Your task to perform on an android device: Open privacy settings Image 0: 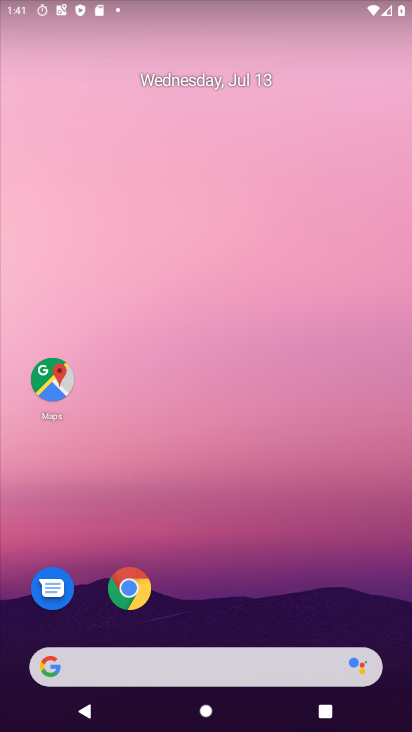
Step 0: drag from (251, 603) to (325, 341)
Your task to perform on an android device: Open privacy settings Image 1: 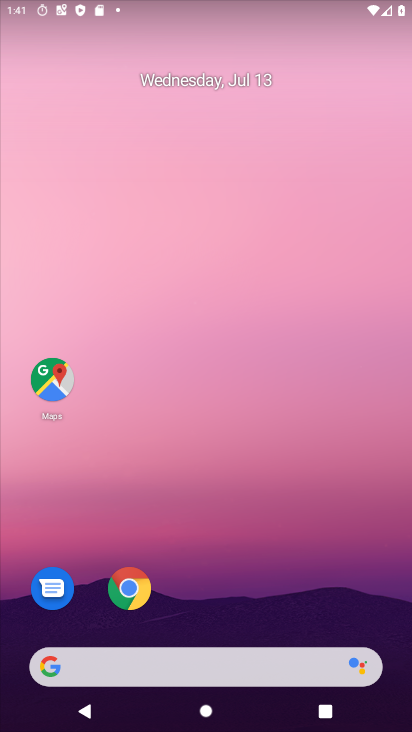
Step 1: drag from (170, 524) to (175, 261)
Your task to perform on an android device: Open privacy settings Image 2: 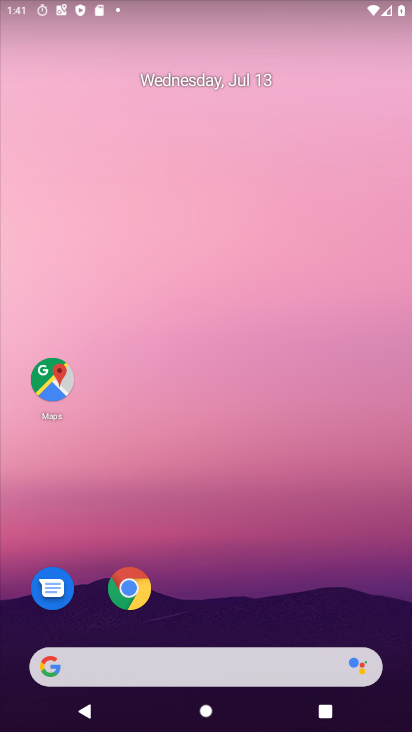
Step 2: drag from (241, 641) to (272, 284)
Your task to perform on an android device: Open privacy settings Image 3: 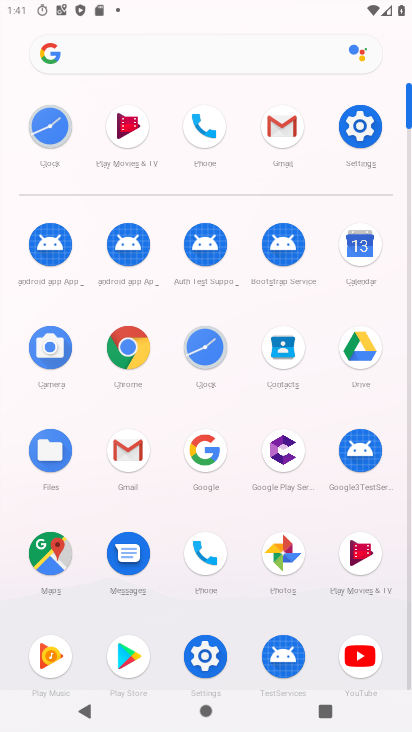
Step 3: click (370, 130)
Your task to perform on an android device: Open privacy settings Image 4: 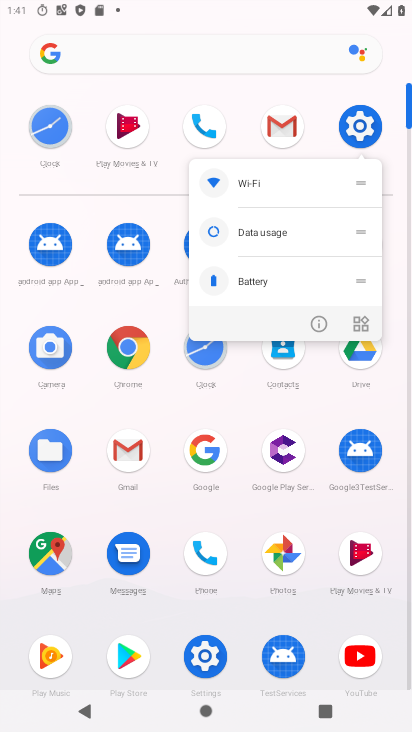
Step 4: click (370, 130)
Your task to perform on an android device: Open privacy settings Image 5: 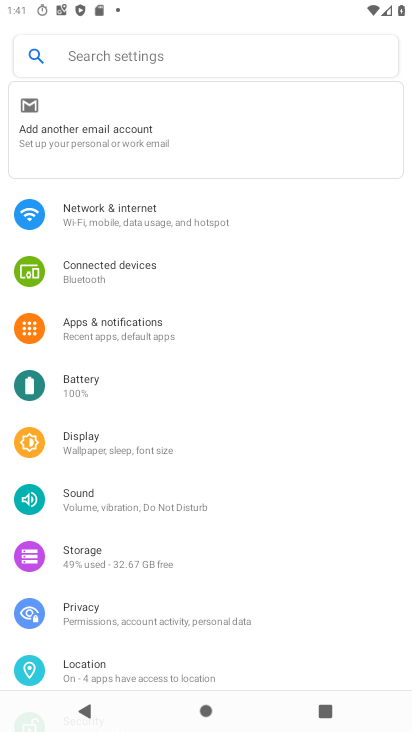
Step 5: click (82, 611)
Your task to perform on an android device: Open privacy settings Image 6: 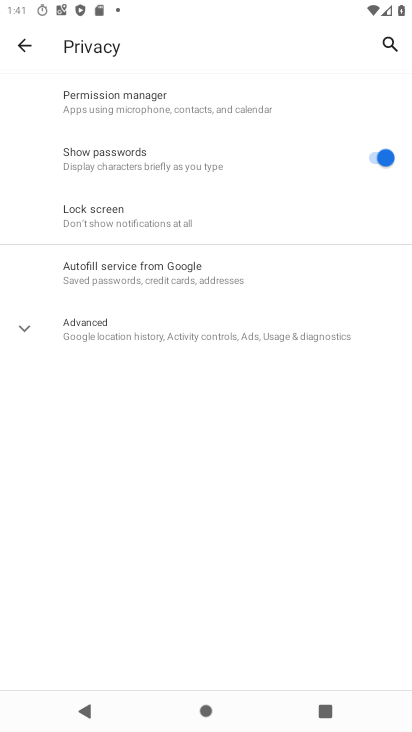
Step 6: click (159, 342)
Your task to perform on an android device: Open privacy settings Image 7: 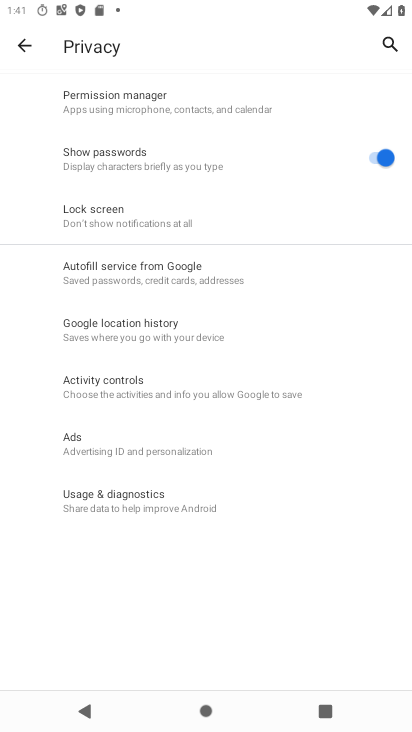
Step 7: task complete